Your task to perform on an android device: turn on translation in the chrome app Image 0: 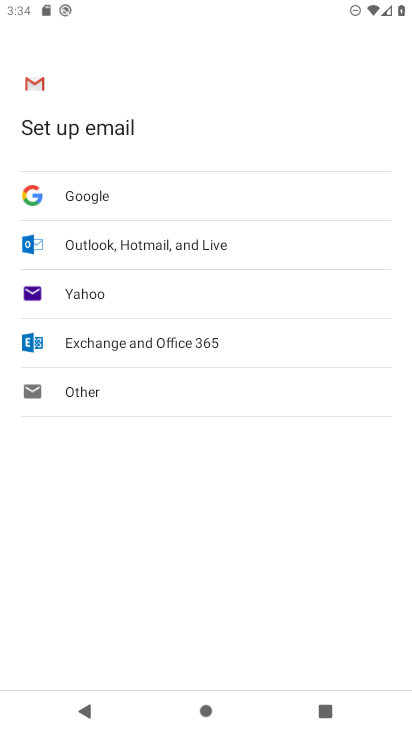
Step 0: press home button
Your task to perform on an android device: turn on translation in the chrome app Image 1: 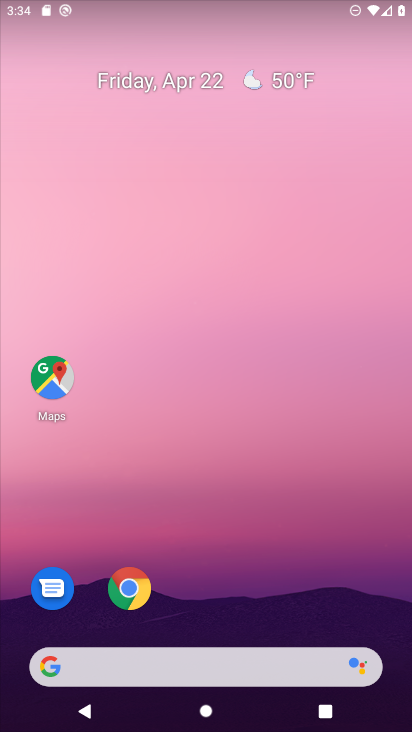
Step 1: click (127, 578)
Your task to perform on an android device: turn on translation in the chrome app Image 2: 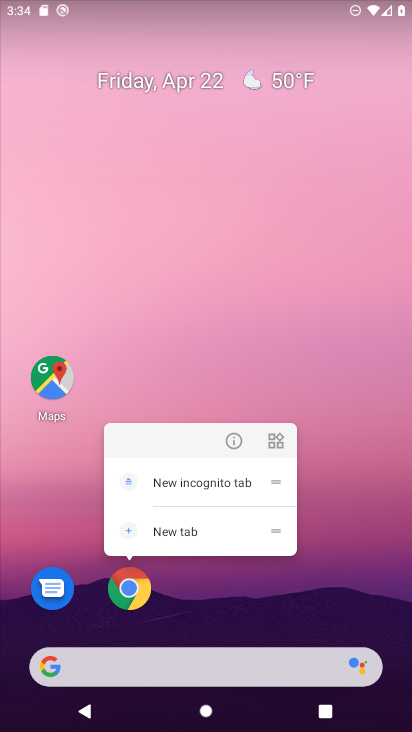
Step 2: click (130, 593)
Your task to perform on an android device: turn on translation in the chrome app Image 3: 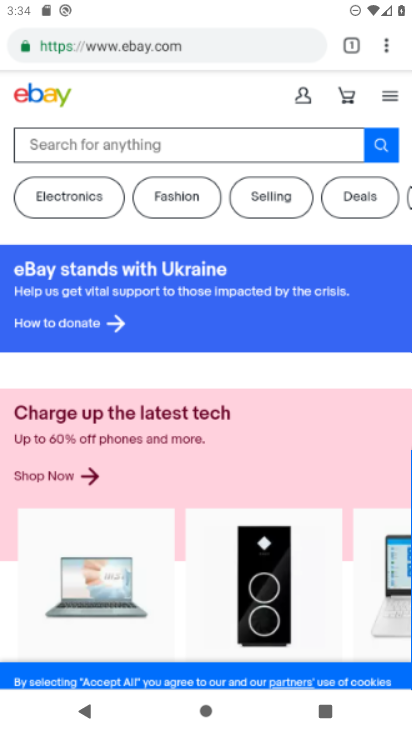
Step 3: click (384, 42)
Your task to perform on an android device: turn on translation in the chrome app Image 4: 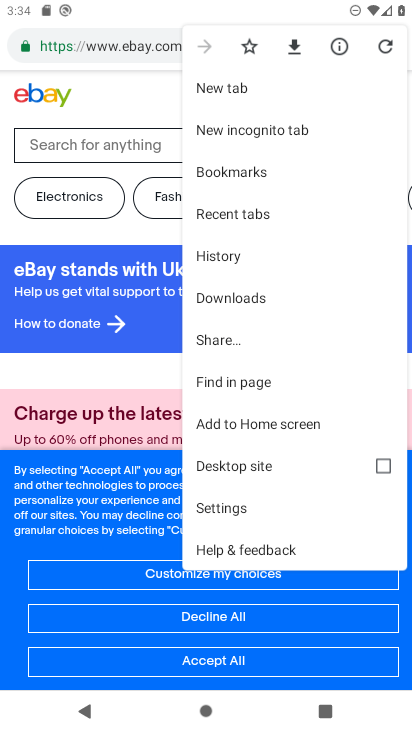
Step 4: click (241, 506)
Your task to perform on an android device: turn on translation in the chrome app Image 5: 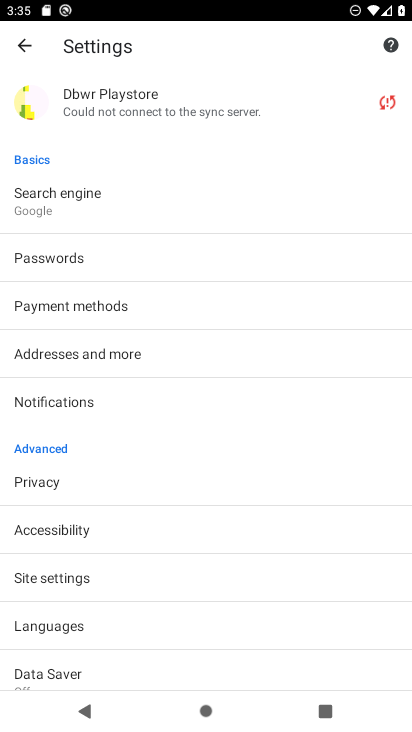
Step 5: click (63, 622)
Your task to perform on an android device: turn on translation in the chrome app Image 6: 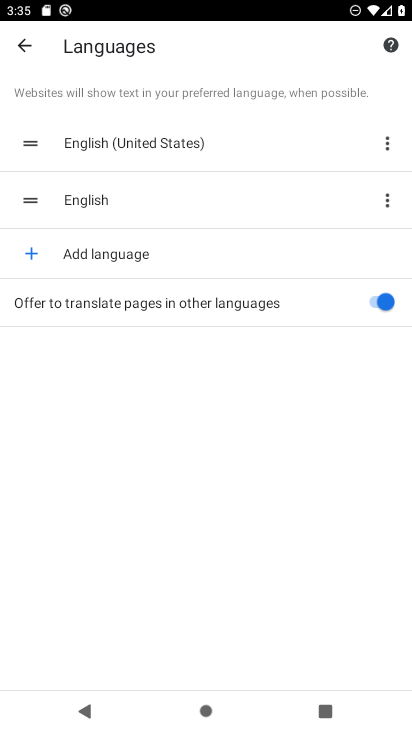
Step 6: task complete